Your task to perform on an android device: What's the weather going to be tomorrow? Image 0: 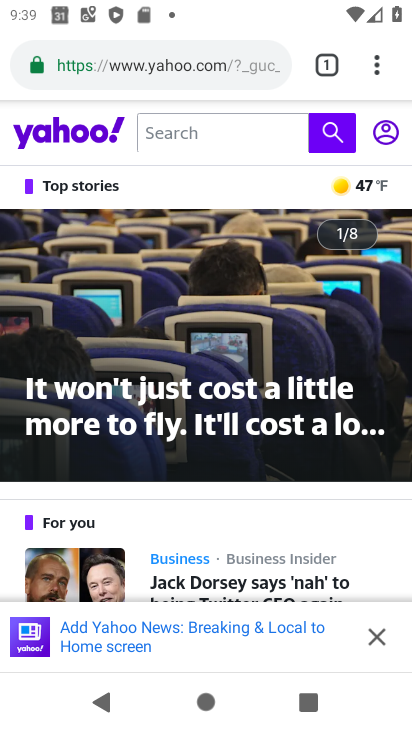
Step 0: press home button
Your task to perform on an android device: What's the weather going to be tomorrow? Image 1: 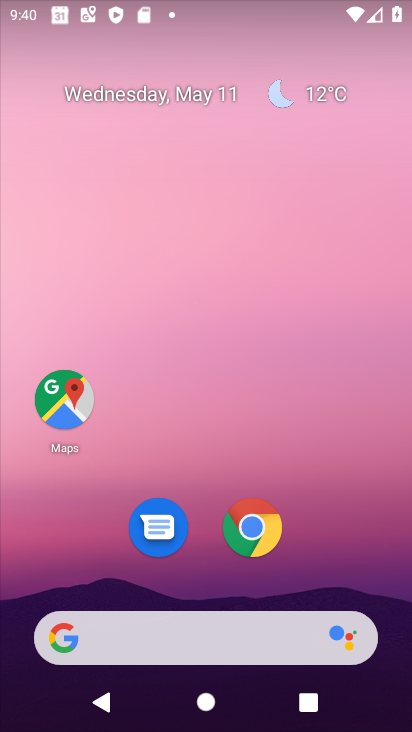
Step 1: drag from (359, 512) to (0, 366)
Your task to perform on an android device: What's the weather going to be tomorrow? Image 2: 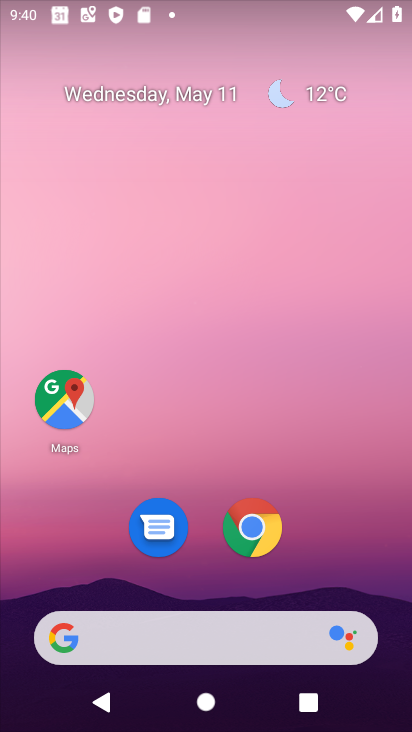
Step 2: drag from (351, 567) to (328, 12)
Your task to perform on an android device: What's the weather going to be tomorrow? Image 3: 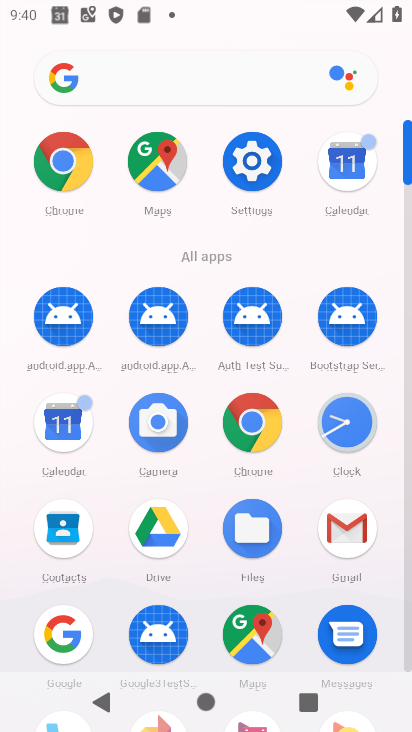
Step 3: click (78, 426)
Your task to perform on an android device: What's the weather going to be tomorrow? Image 4: 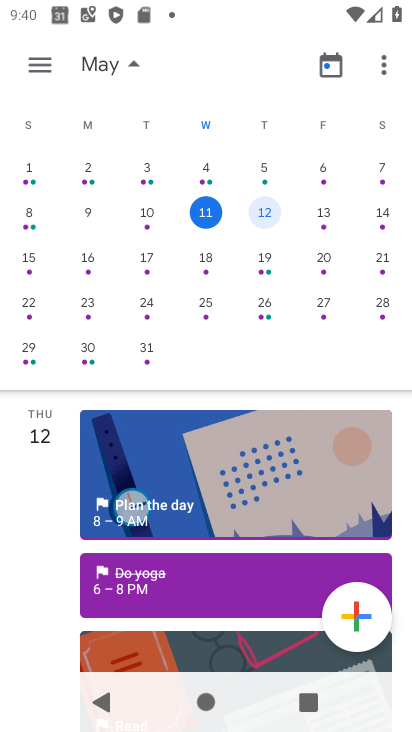
Step 4: press home button
Your task to perform on an android device: What's the weather going to be tomorrow? Image 5: 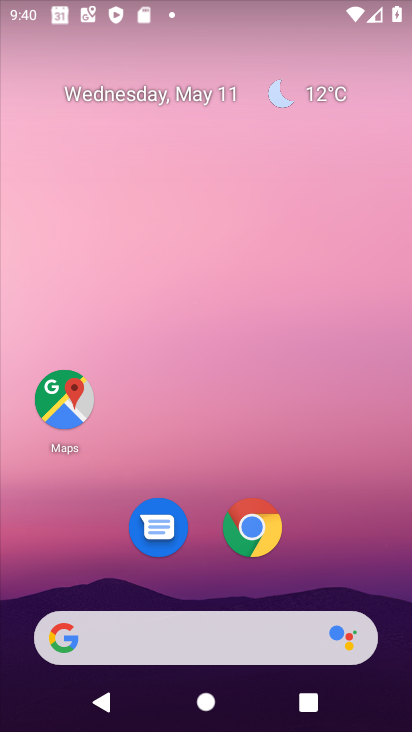
Step 5: drag from (328, 435) to (311, 63)
Your task to perform on an android device: What's the weather going to be tomorrow? Image 6: 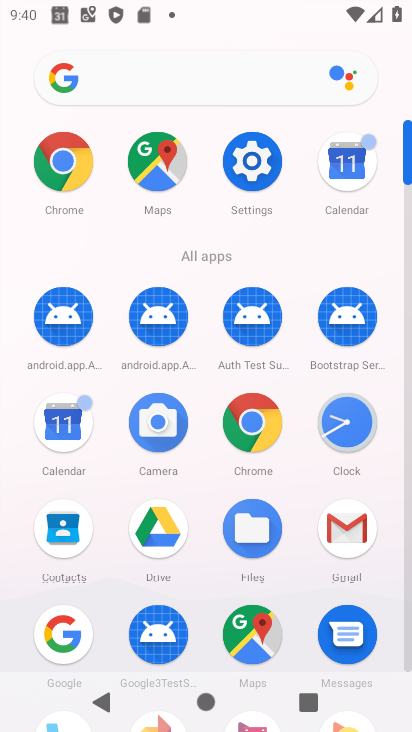
Step 6: press home button
Your task to perform on an android device: What's the weather going to be tomorrow? Image 7: 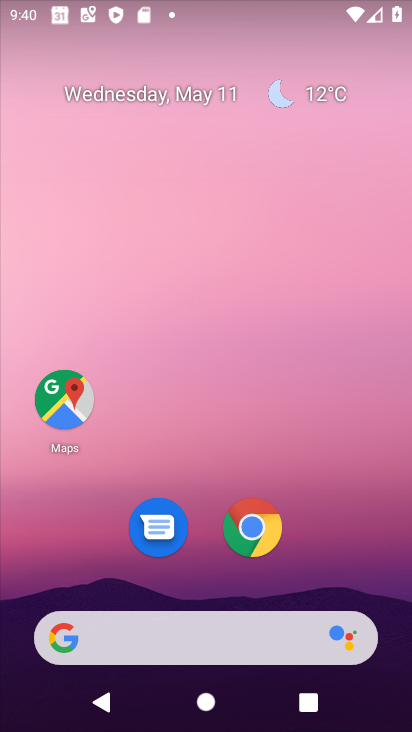
Step 7: click (314, 99)
Your task to perform on an android device: What's the weather going to be tomorrow? Image 8: 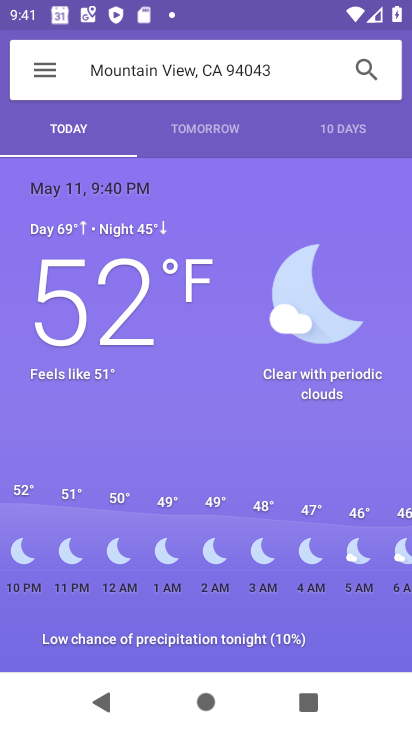
Step 8: task complete